Your task to perform on an android device: Go to sound settings Image 0: 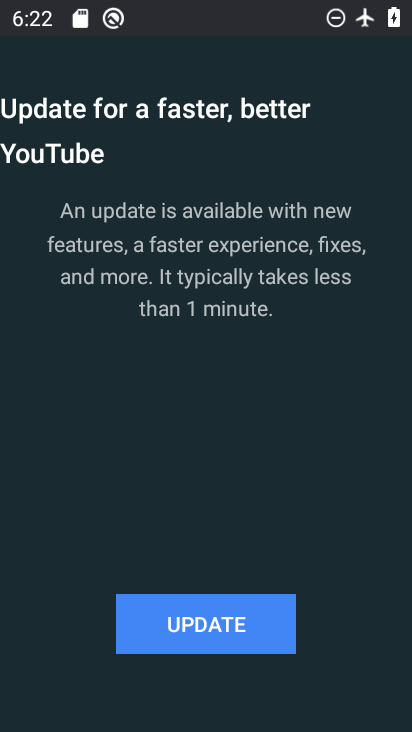
Step 0: press home button
Your task to perform on an android device: Go to sound settings Image 1: 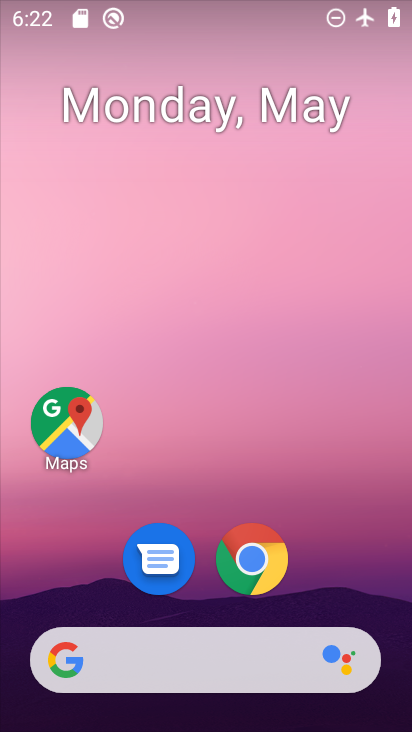
Step 1: drag from (341, 508) to (272, 165)
Your task to perform on an android device: Go to sound settings Image 2: 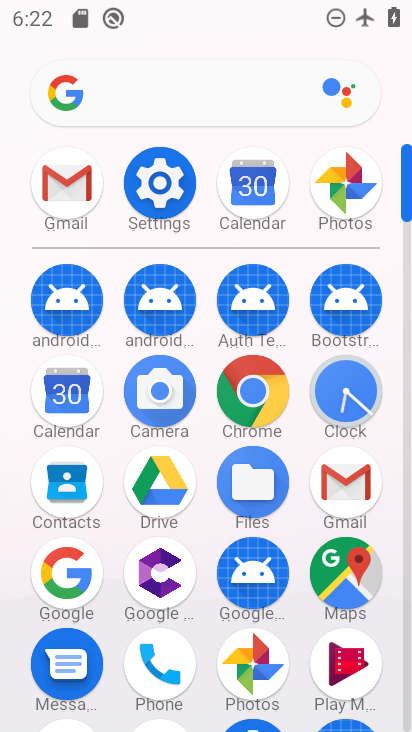
Step 2: click (160, 183)
Your task to perform on an android device: Go to sound settings Image 3: 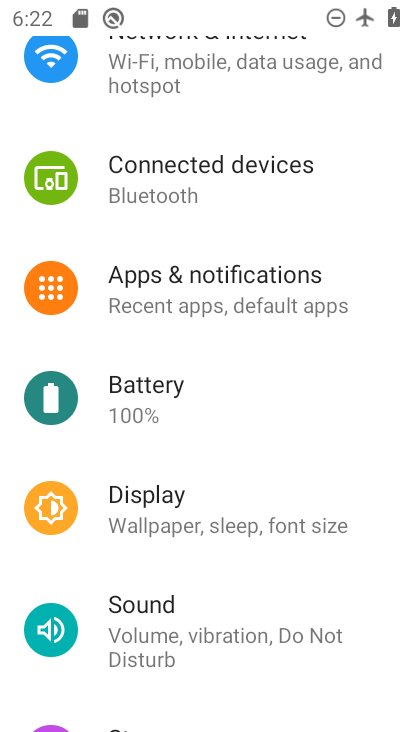
Step 3: click (137, 602)
Your task to perform on an android device: Go to sound settings Image 4: 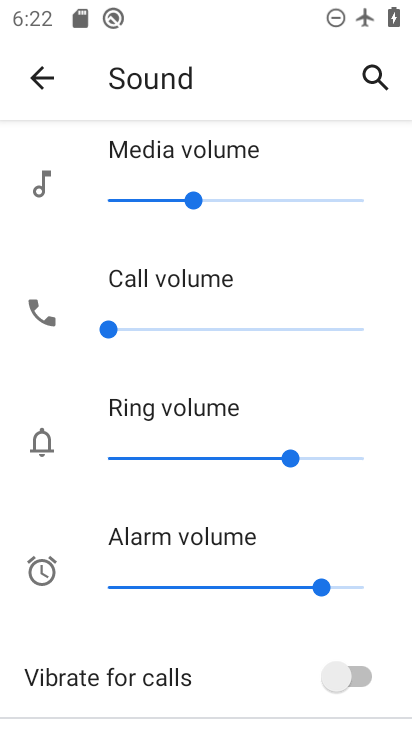
Step 4: task complete